Your task to perform on an android device: View the shopping cart on amazon.com. Search for apple airpods pro on amazon.com, select the first entry, and add it to the cart. Image 0: 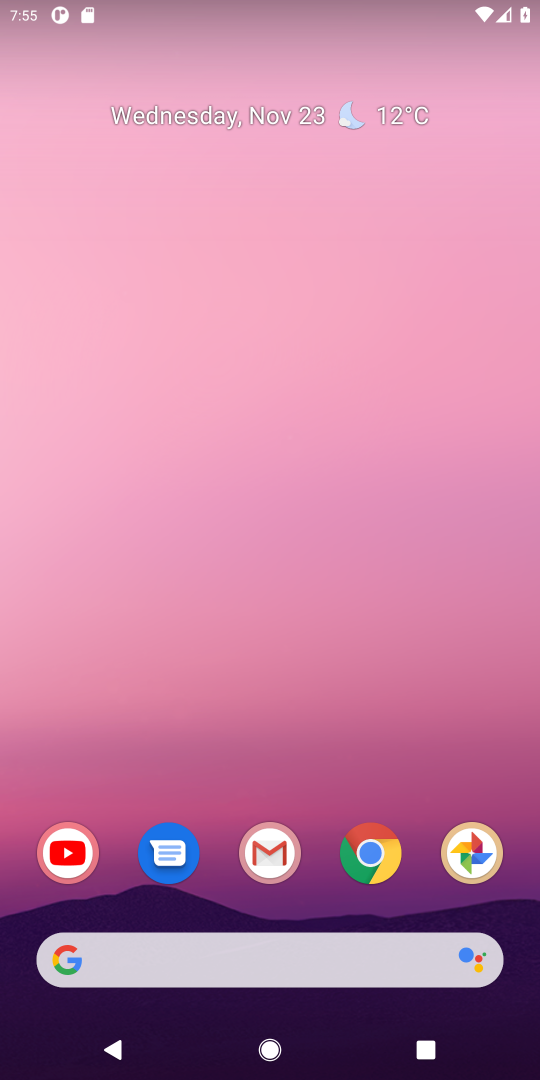
Step 0: click (366, 862)
Your task to perform on an android device: View the shopping cart on amazon.com. Search for apple airpods pro on amazon.com, select the first entry, and add it to the cart. Image 1: 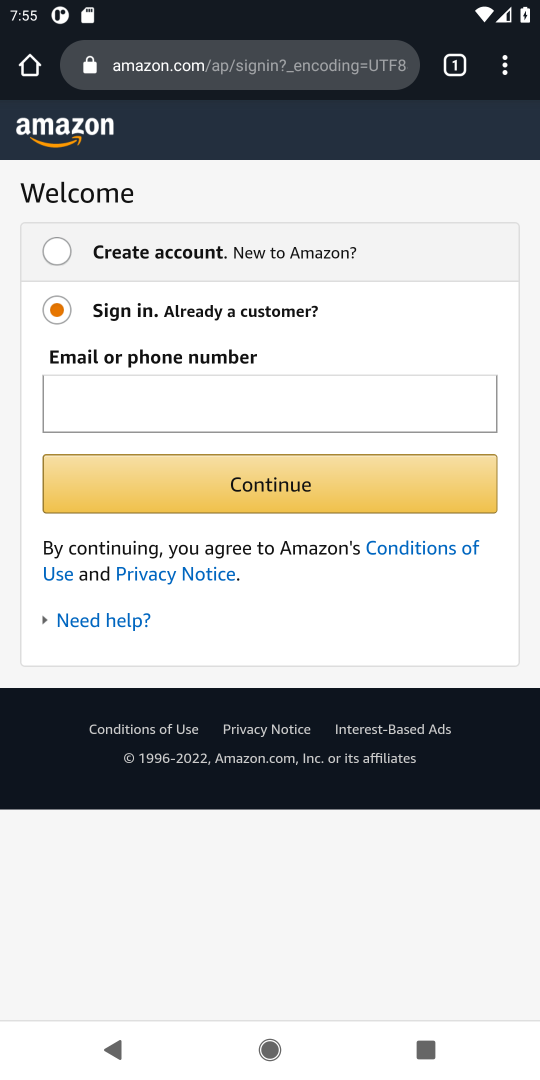
Step 1: press back button
Your task to perform on an android device: View the shopping cart on amazon.com. Search for apple airpods pro on amazon.com, select the first entry, and add it to the cart. Image 2: 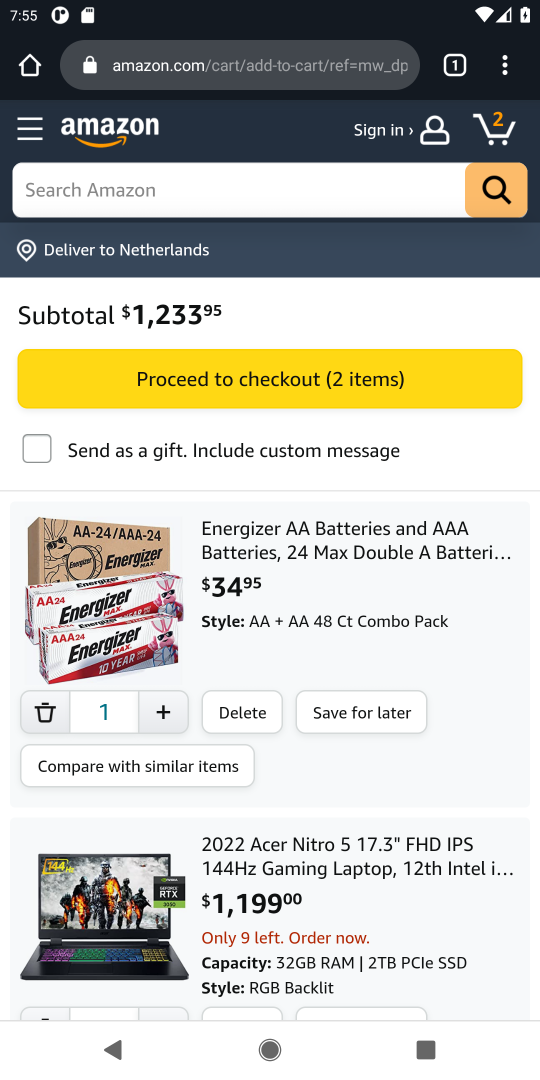
Step 2: drag from (254, 794) to (238, 620)
Your task to perform on an android device: View the shopping cart on amazon.com. Search for apple airpods pro on amazon.com, select the first entry, and add it to the cart. Image 3: 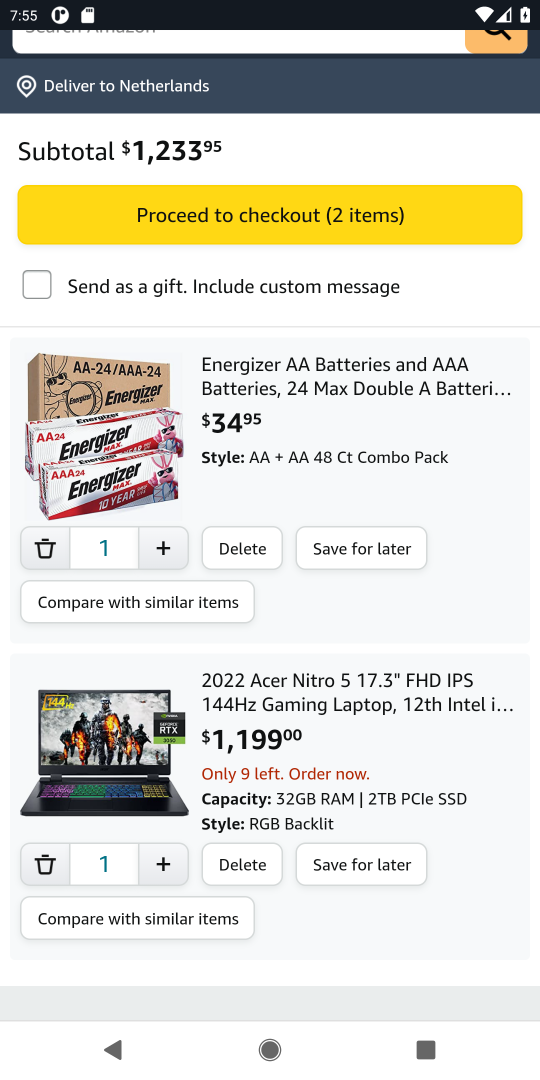
Step 3: drag from (467, 293) to (505, 622)
Your task to perform on an android device: View the shopping cart on amazon.com. Search for apple airpods pro on amazon.com, select the first entry, and add it to the cart. Image 4: 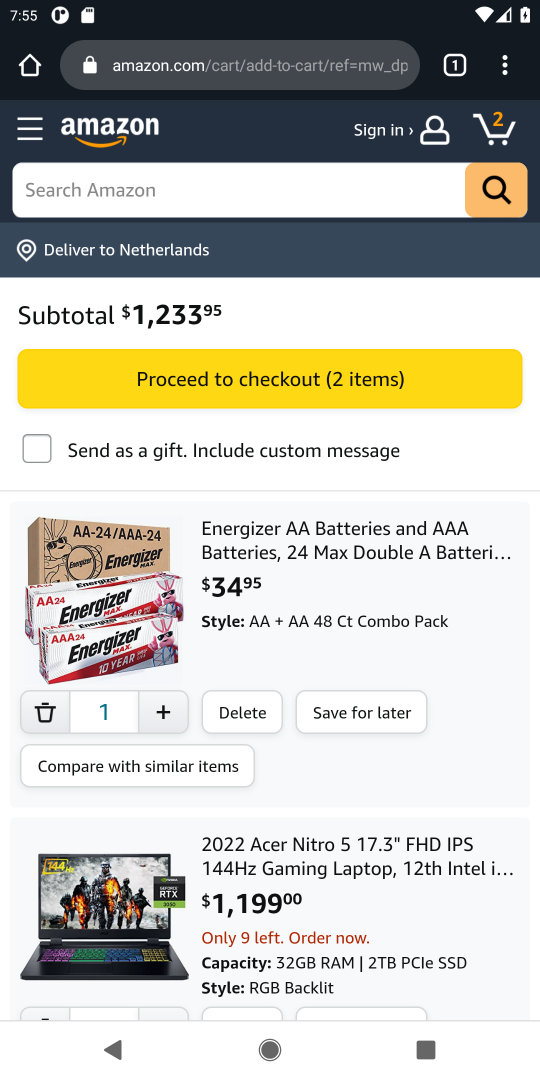
Step 4: click (141, 182)
Your task to perform on an android device: View the shopping cart on amazon.com. Search for apple airpods pro on amazon.com, select the first entry, and add it to the cart. Image 5: 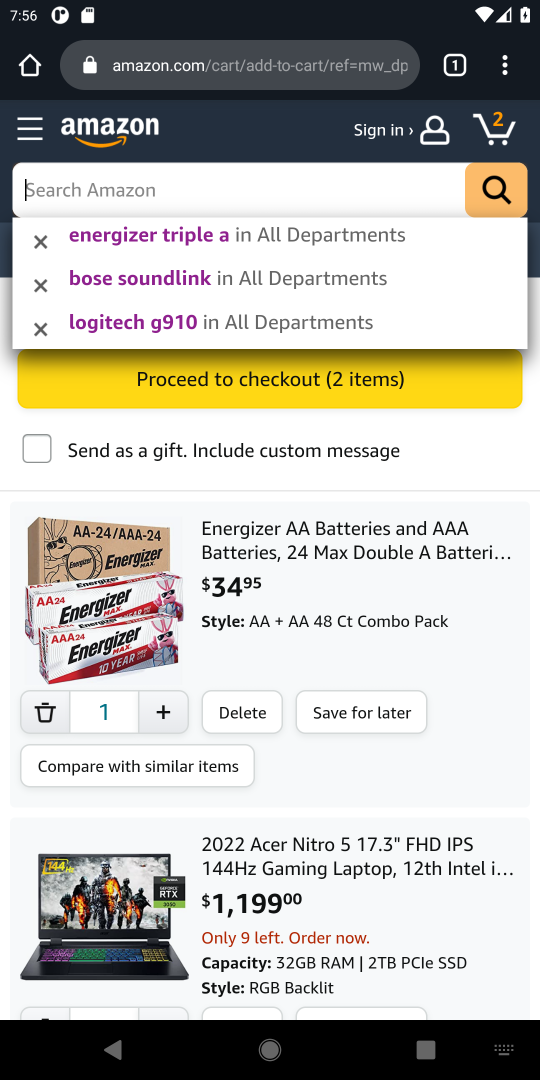
Step 5: type " apple airpods pro"
Your task to perform on an android device: View the shopping cart on amazon.com. Search for apple airpods pro on amazon.com, select the first entry, and add it to the cart. Image 6: 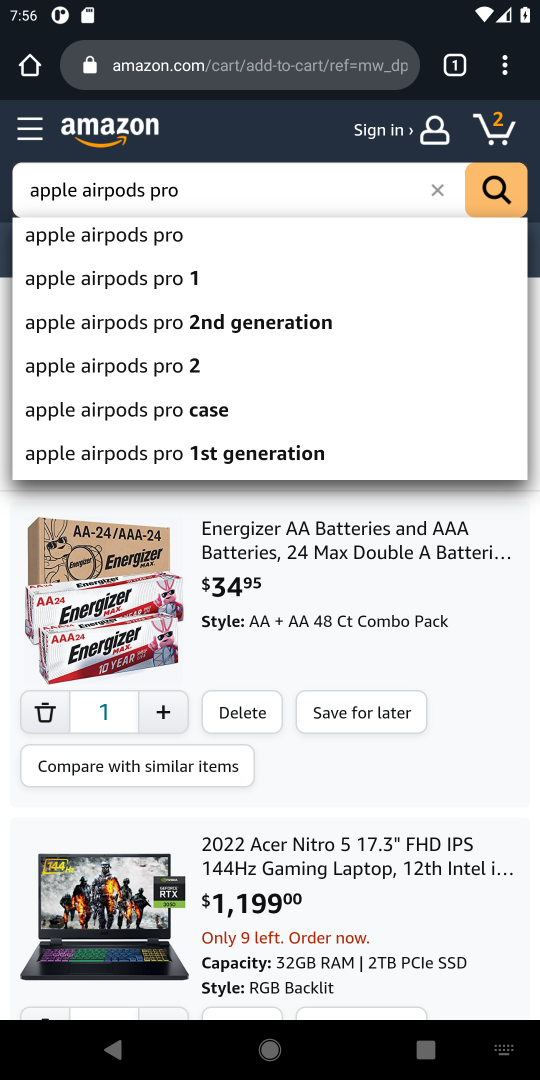
Step 6: click (86, 238)
Your task to perform on an android device: View the shopping cart on amazon.com. Search for apple airpods pro on amazon.com, select the first entry, and add it to the cart. Image 7: 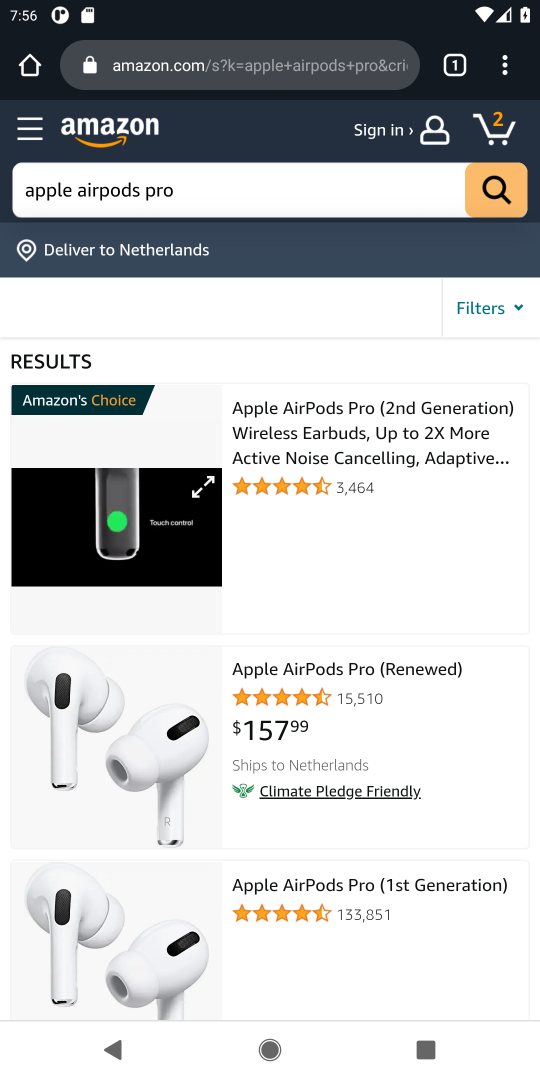
Step 7: click (252, 448)
Your task to perform on an android device: View the shopping cart on amazon.com. Search for apple airpods pro on amazon.com, select the first entry, and add it to the cart. Image 8: 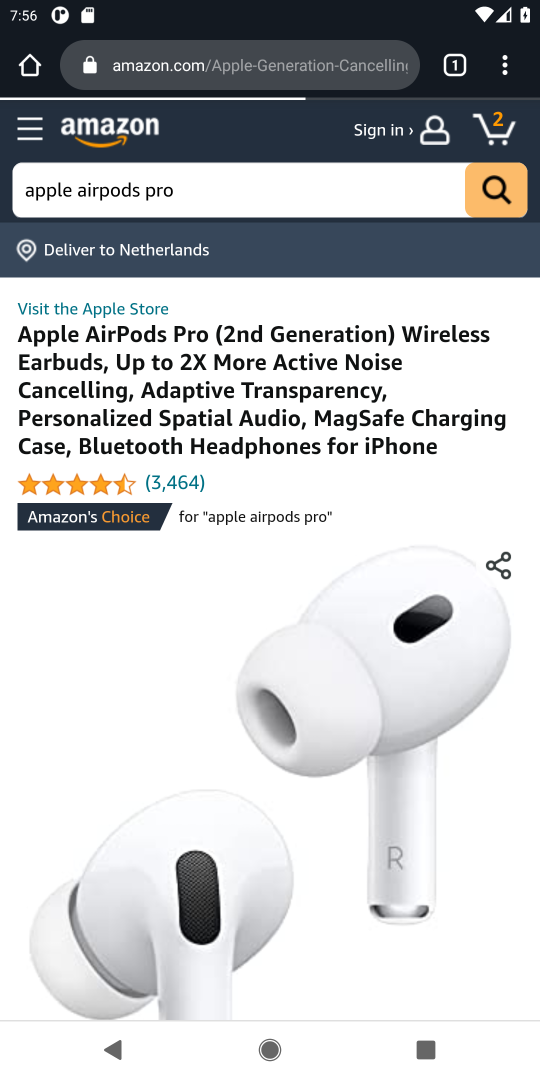
Step 8: task complete